Your task to perform on an android device: delete browsing data in the chrome app Image 0: 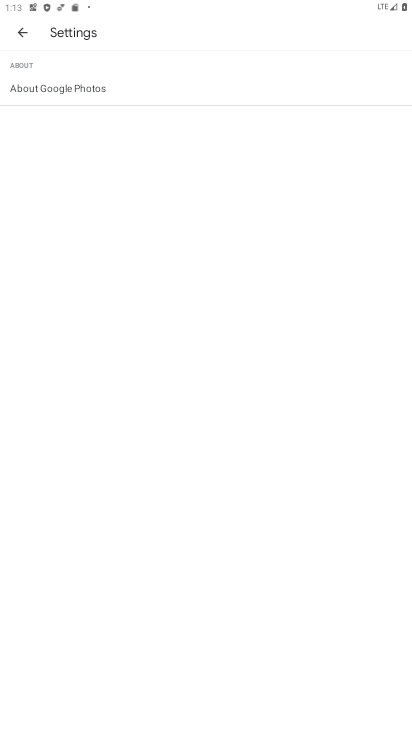
Step 0: press home button
Your task to perform on an android device: delete browsing data in the chrome app Image 1: 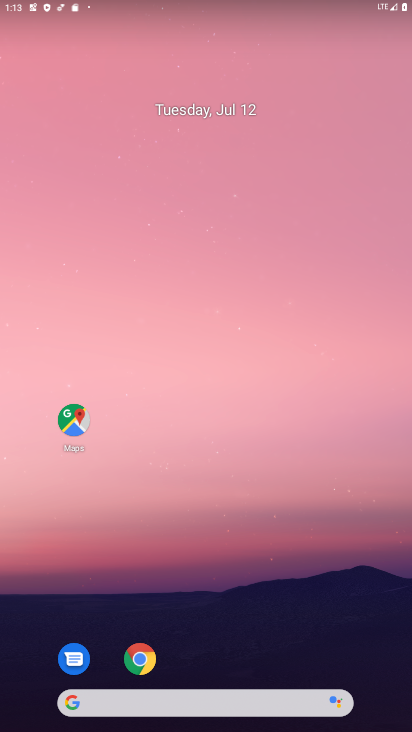
Step 1: click (140, 658)
Your task to perform on an android device: delete browsing data in the chrome app Image 2: 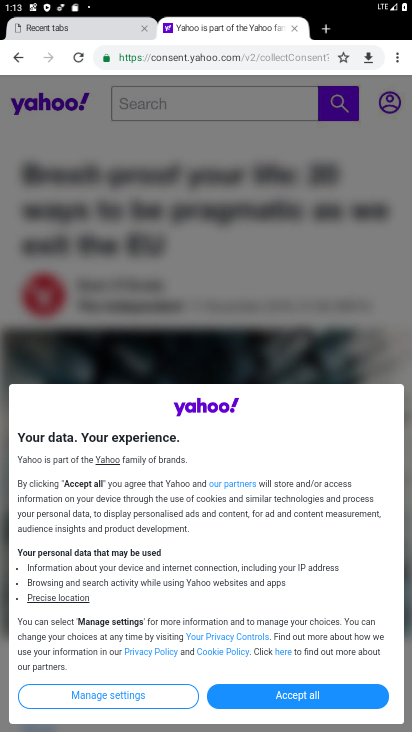
Step 2: click (396, 59)
Your task to perform on an android device: delete browsing data in the chrome app Image 3: 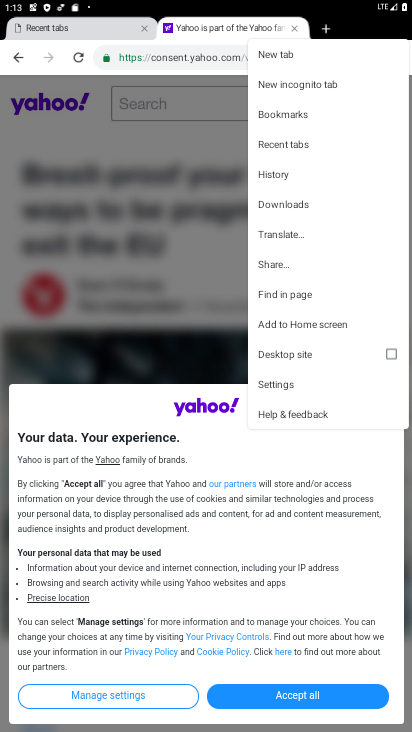
Step 3: click (275, 172)
Your task to perform on an android device: delete browsing data in the chrome app Image 4: 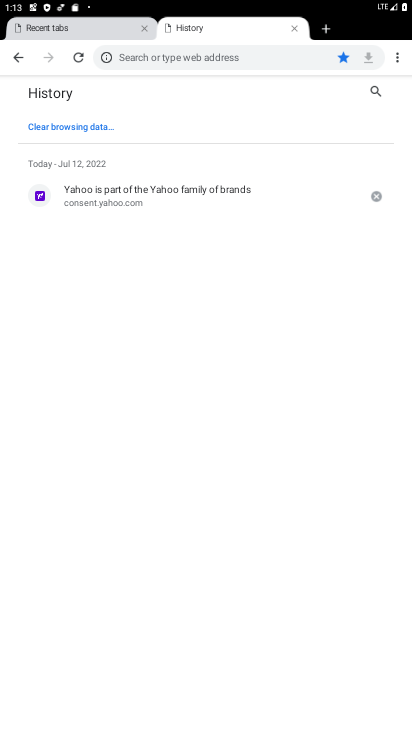
Step 4: click (83, 126)
Your task to perform on an android device: delete browsing data in the chrome app Image 5: 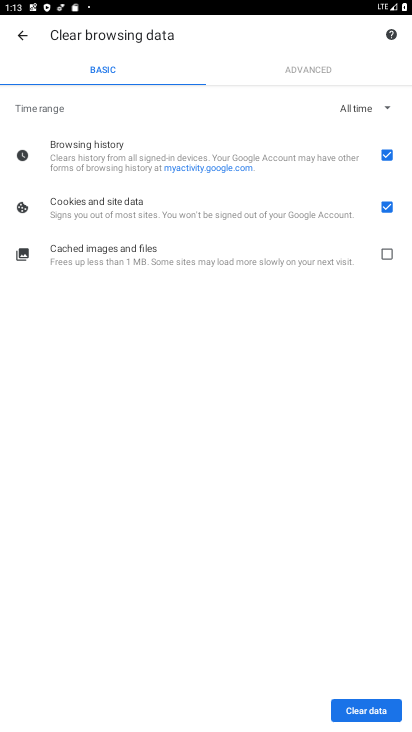
Step 5: click (388, 207)
Your task to perform on an android device: delete browsing data in the chrome app Image 6: 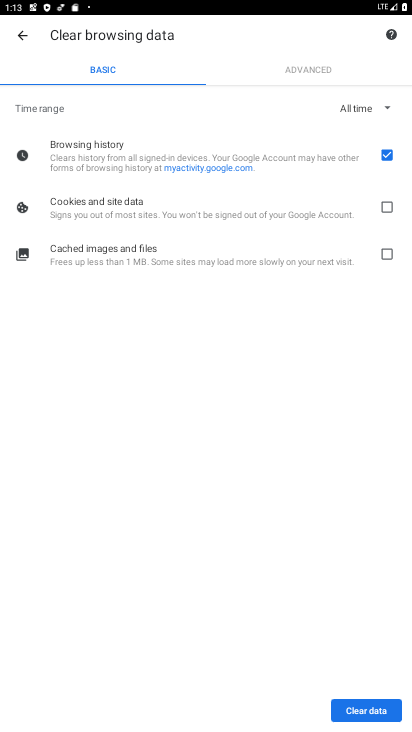
Step 6: click (374, 711)
Your task to perform on an android device: delete browsing data in the chrome app Image 7: 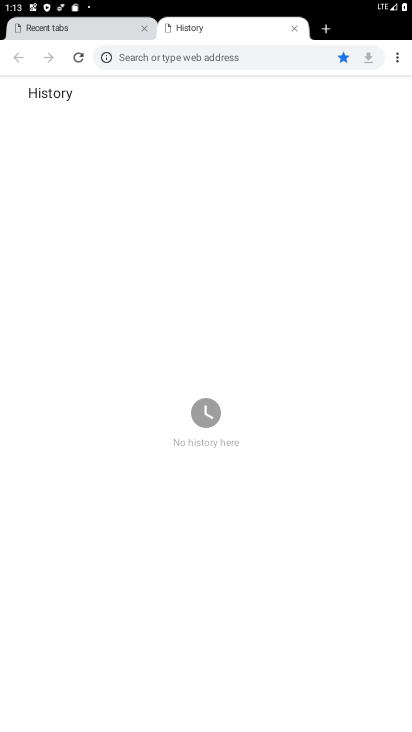
Step 7: task complete